Your task to perform on an android device: Open settings on Google Maps Image 0: 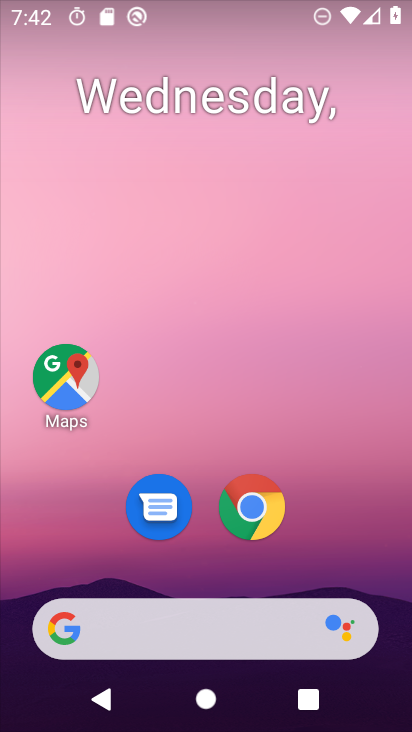
Step 0: drag from (232, 661) to (314, 131)
Your task to perform on an android device: Open settings on Google Maps Image 1: 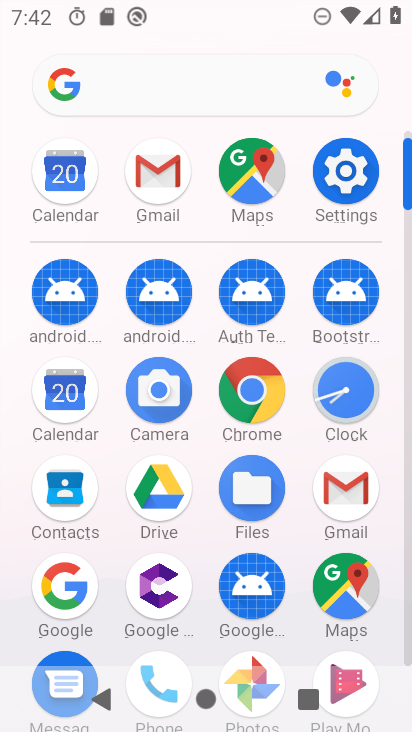
Step 1: click (270, 158)
Your task to perform on an android device: Open settings on Google Maps Image 2: 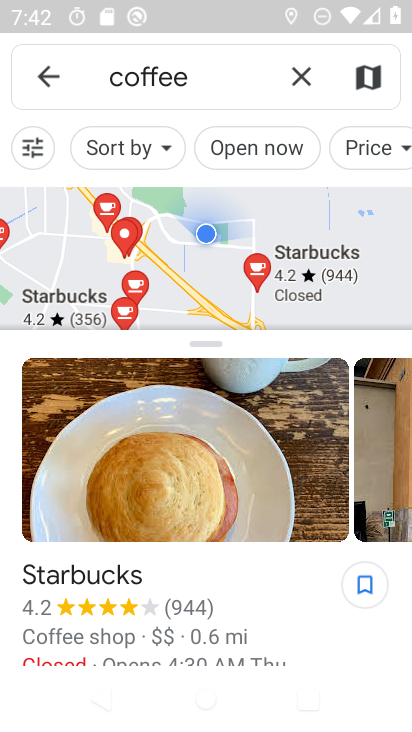
Step 2: click (46, 88)
Your task to perform on an android device: Open settings on Google Maps Image 3: 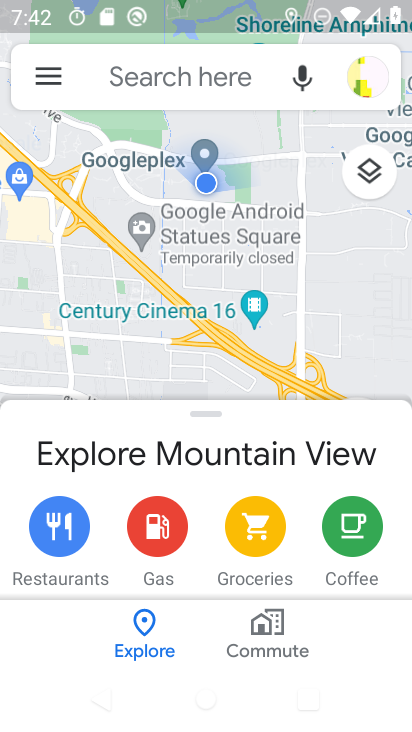
Step 3: click (42, 78)
Your task to perform on an android device: Open settings on Google Maps Image 4: 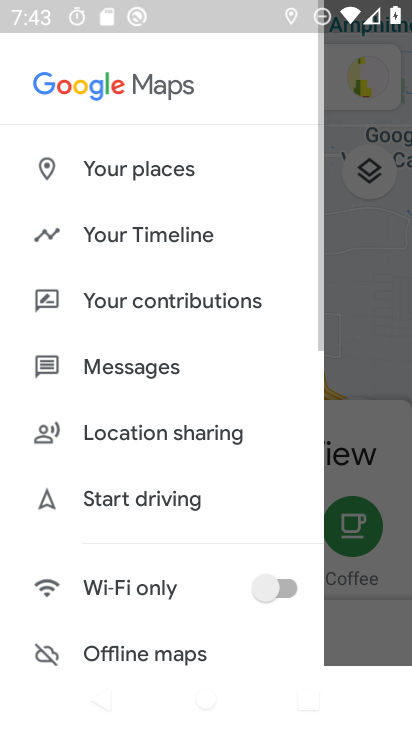
Step 4: drag from (141, 514) to (298, 161)
Your task to perform on an android device: Open settings on Google Maps Image 5: 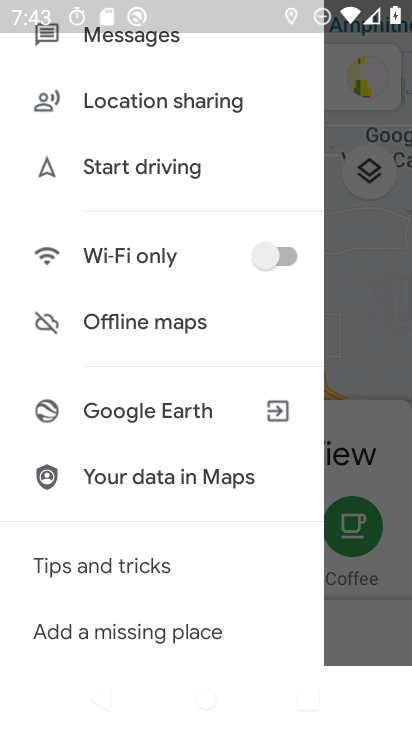
Step 5: drag from (150, 509) to (264, 278)
Your task to perform on an android device: Open settings on Google Maps Image 6: 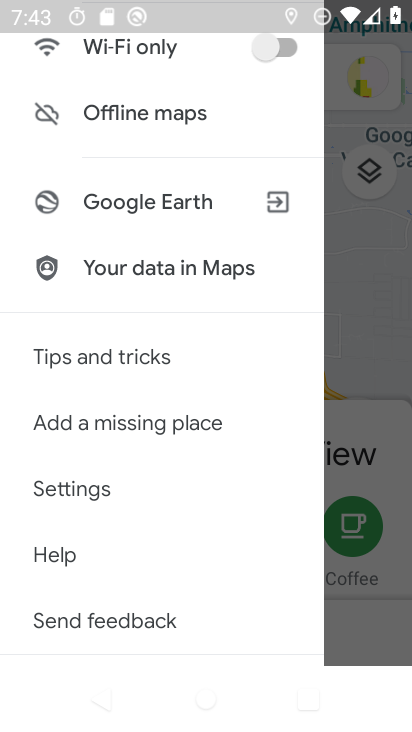
Step 6: click (103, 487)
Your task to perform on an android device: Open settings on Google Maps Image 7: 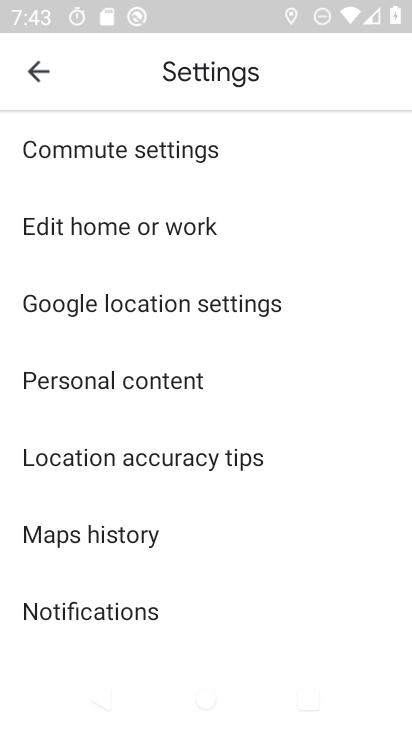
Step 7: task complete